Your task to perform on an android device: Open Android settings Image 0: 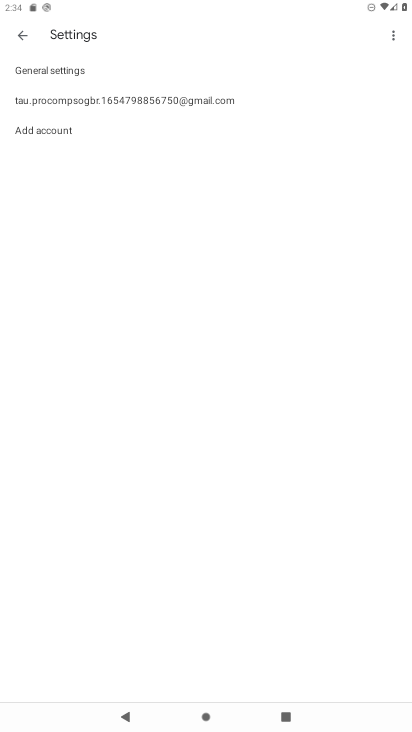
Step 0: press home button
Your task to perform on an android device: Open Android settings Image 1: 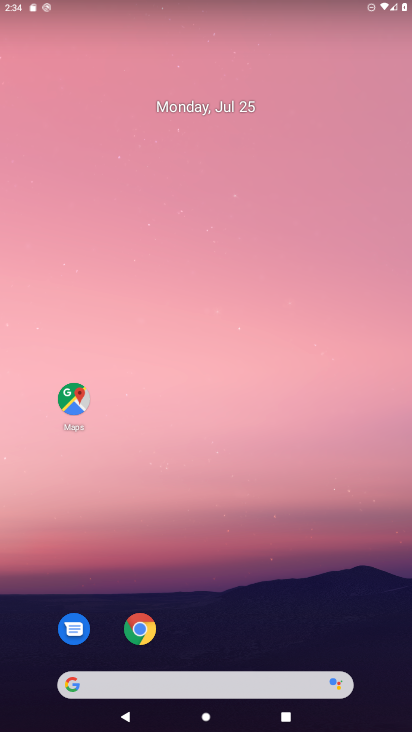
Step 1: drag from (303, 606) to (372, 51)
Your task to perform on an android device: Open Android settings Image 2: 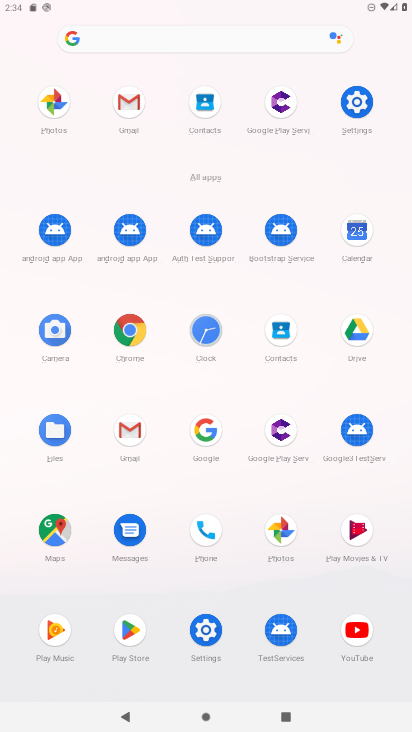
Step 2: click (200, 620)
Your task to perform on an android device: Open Android settings Image 3: 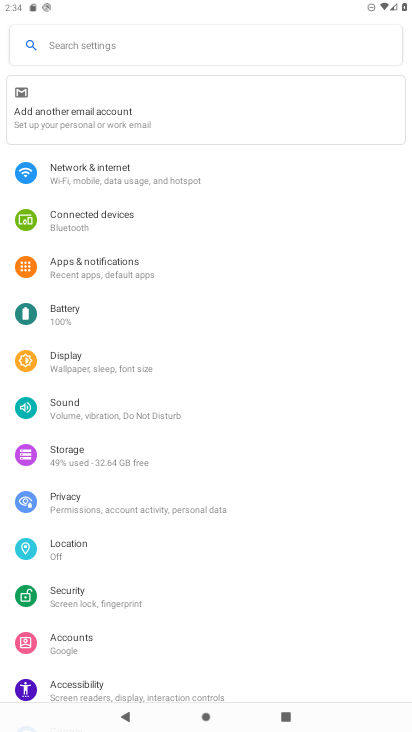
Step 3: drag from (260, 649) to (285, 131)
Your task to perform on an android device: Open Android settings Image 4: 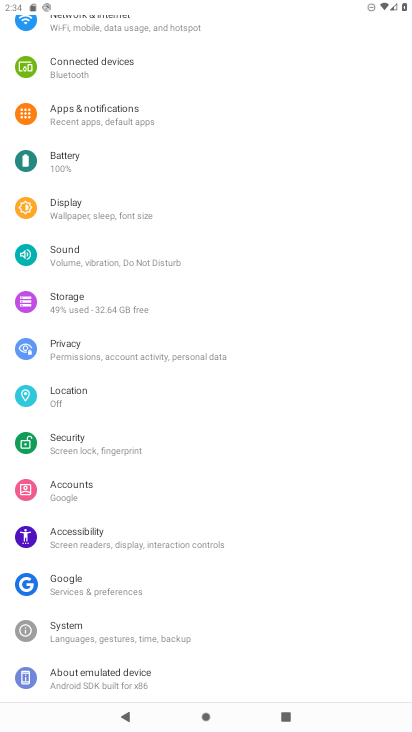
Step 4: click (127, 679)
Your task to perform on an android device: Open Android settings Image 5: 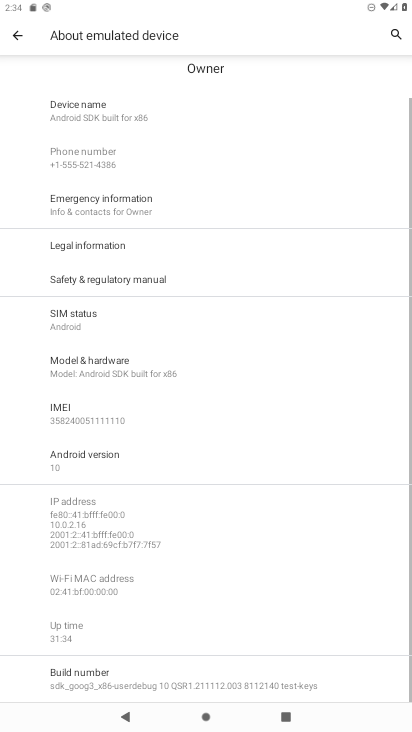
Step 5: click (108, 461)
Your task to perform on an android device: Open Android settings Image 6: 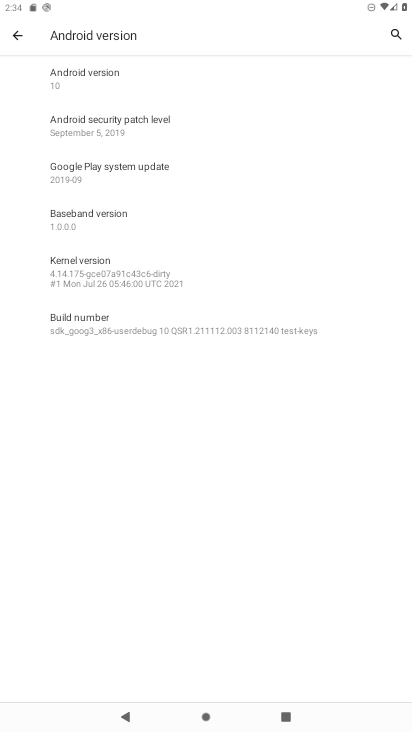
Step 6: task complete